Your task to perform on an android device: turn pop-ups off in chrome Image 0: 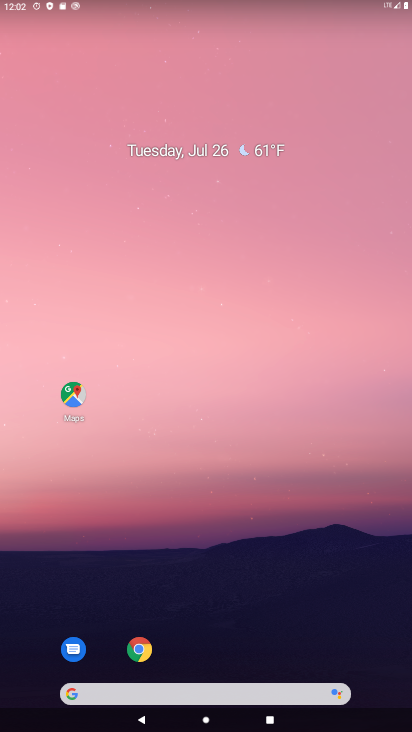
Step 0: click (147, 659)
Your task to perform on an android device: turn pop-ups off in chrome Image 1: 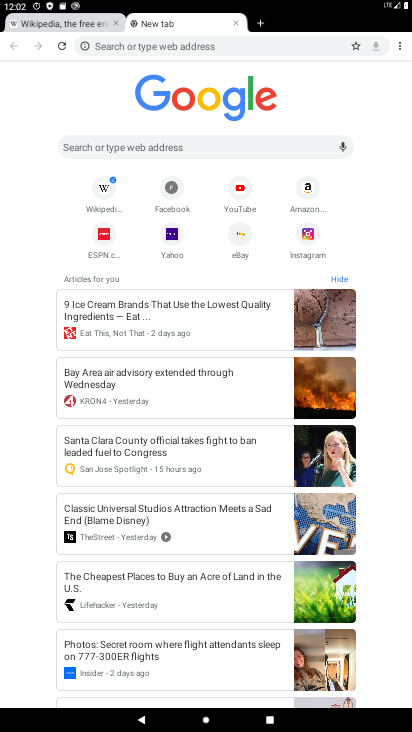
Step 1: drag from (398, 44) to (310, 212)
Your task to perform on an android device: turn pop-ups off in chrome Image 2: 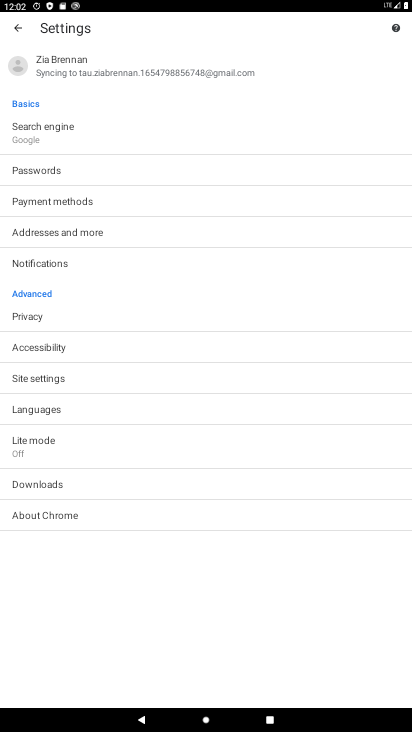
Step 2: click (34, 313)
Your task to perform on an android device: turn pop-ups off in chrome Image 3: 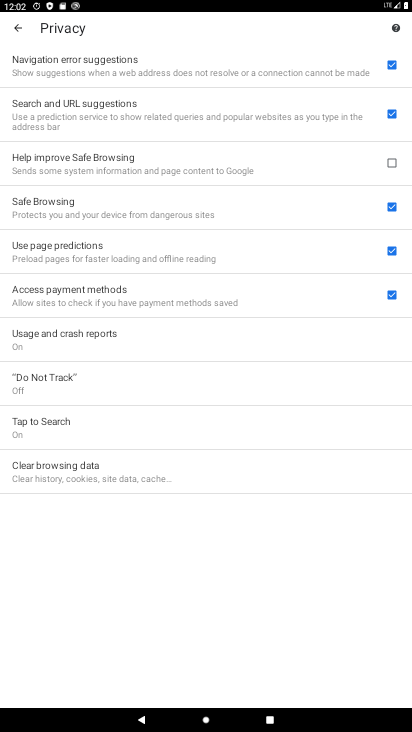
Step 3: task complete